Your task to perform on an android device: Go to Reddit.com Image 0: 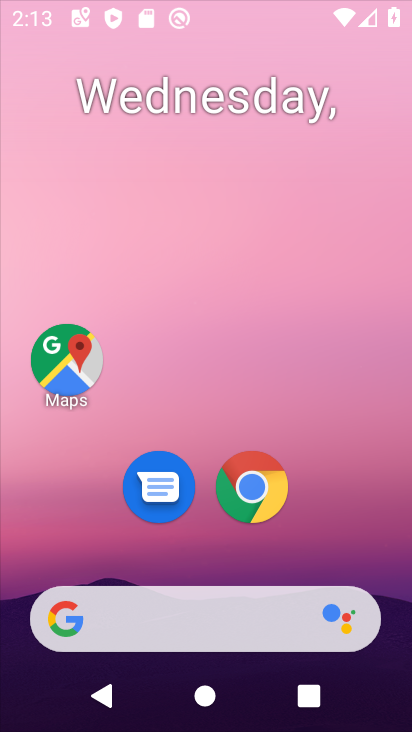
Step 0: drag from (368, 493) to (171, 11)
Your task to perform on an android device: Go to Reddit.com Image 1: 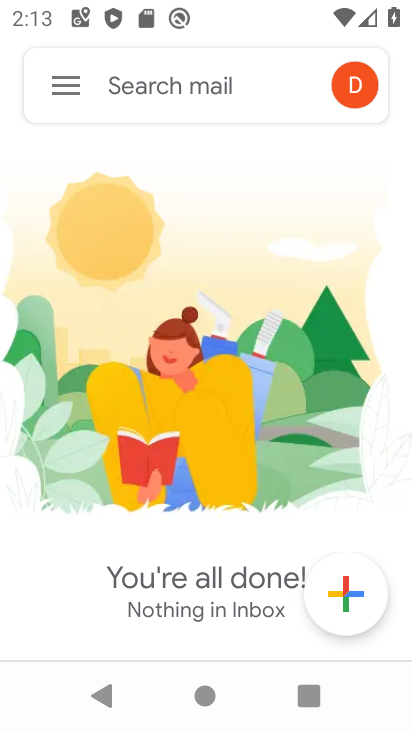
Step 1: press home button
Your task to perform on an android device: Go to Reddit.com Image 2: 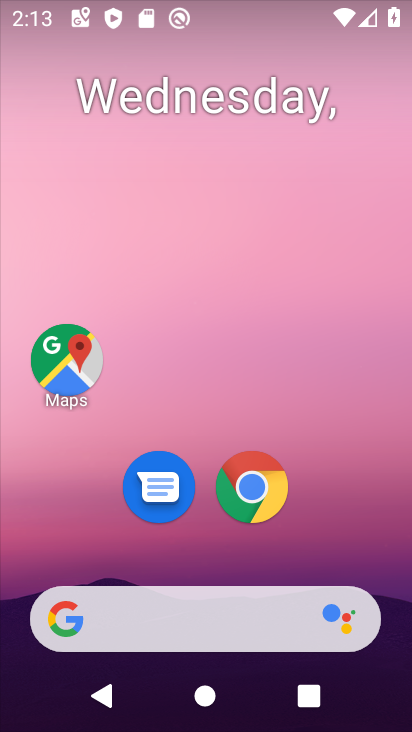
Step 2: click (249, 489)
Your task to perform on an android device: Go to Reddit.com Image 3: 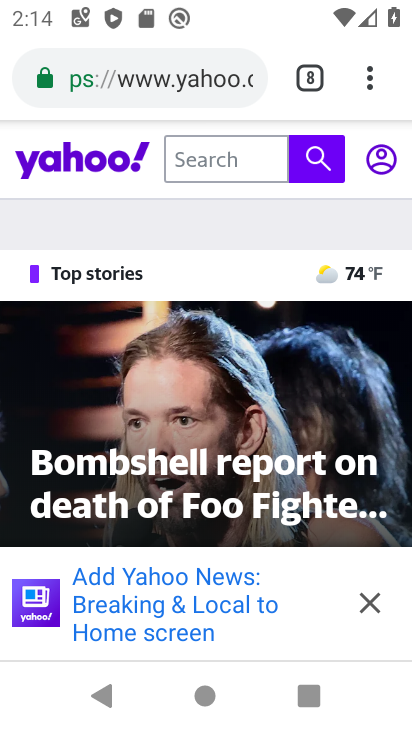
Step 3: click (360, 71)
Your task to perform on an android device: Go to Reddit.com Image 4: 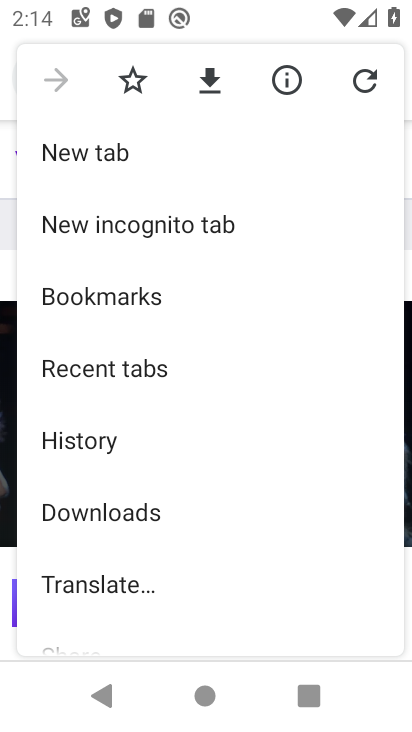
Step 4: click (119, 156)
Your task to perform on an android device: Go to Reddit.com Image 5: 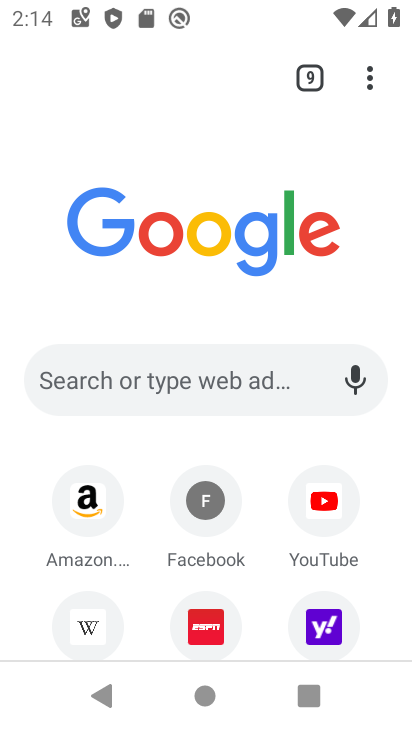
Step 5: click (192, 367)
Your task to perform on an android device: Go to Reddit.com Image 6: 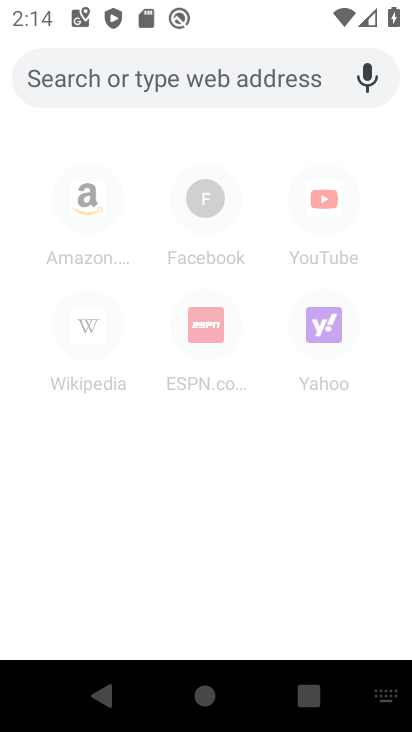
Step 6: type "reddit.com"
Your task to perform on an android device: Go to Reddit.com Image 7: 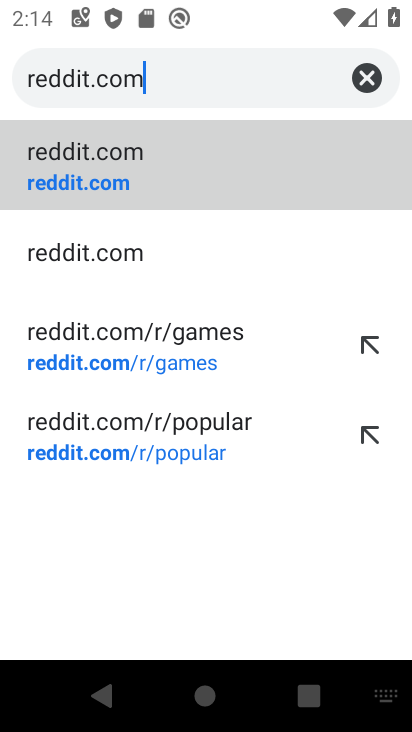
Step 7: click (158, 180)
Your task to perform on an android device: Go to Reddit.com Image 8: 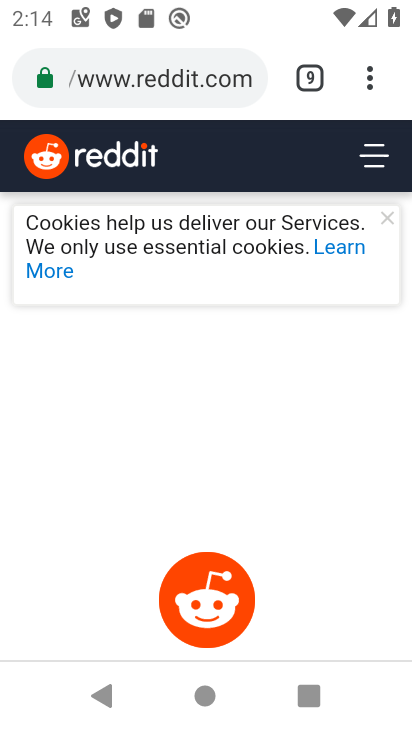
Step 8: task complete